Your task to perform on an android device: What's the weather? Image 0: 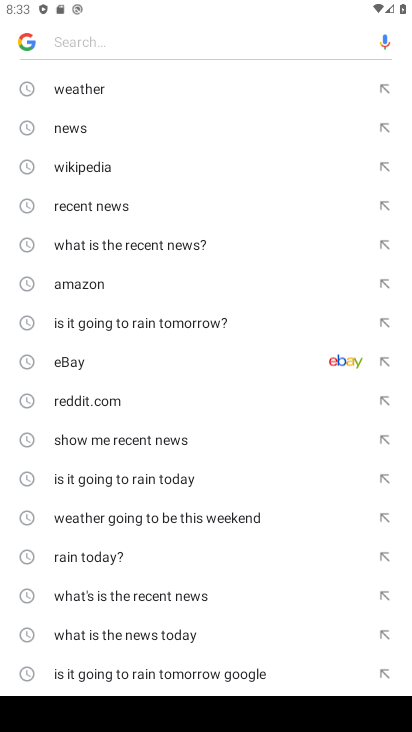
Step 0: press home button
Your task to perform on an android device: What's the weather? Image 1: 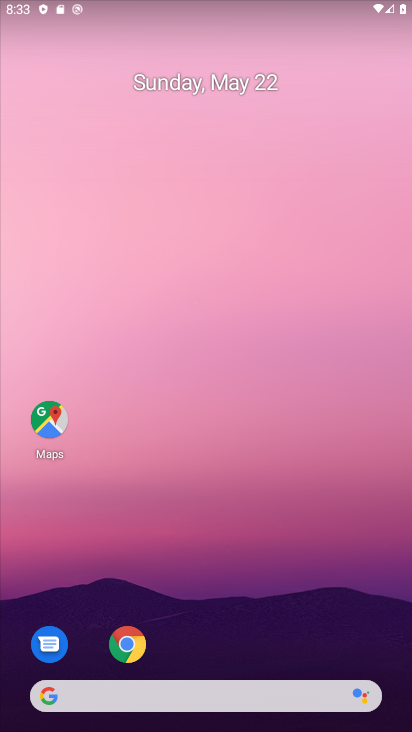
Step 1: drag from (21, 288) to (381, 265)
Your task to perform on an android device: What's the weather? Image 2: 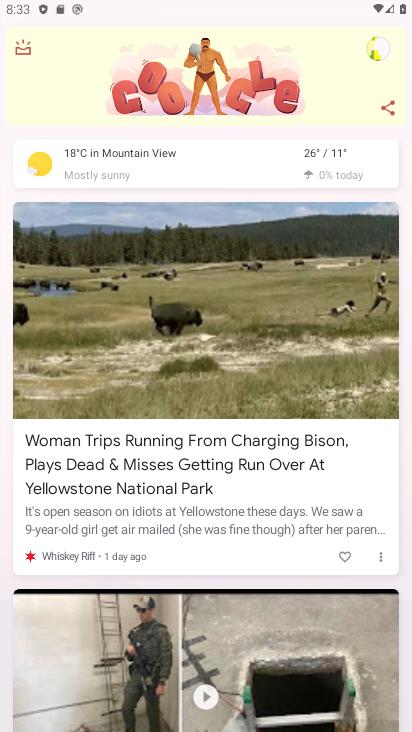
Step 2: click (42, 164)
Your task to perform on an android device: What's the weather? Image 3: 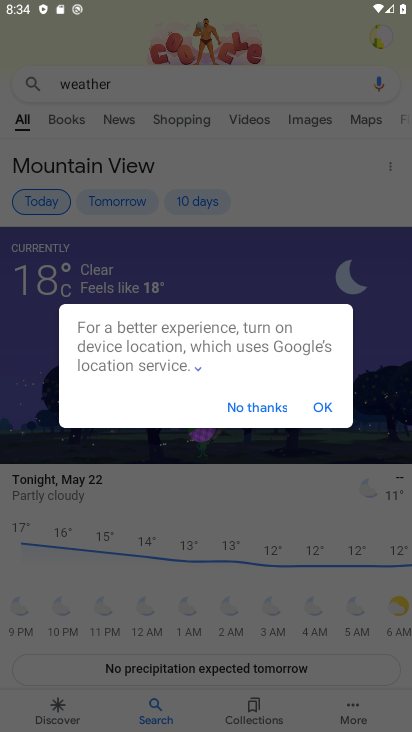
Step 3: click (322, 411)
Your task to perform on an android device: What's the weather? Image 4: 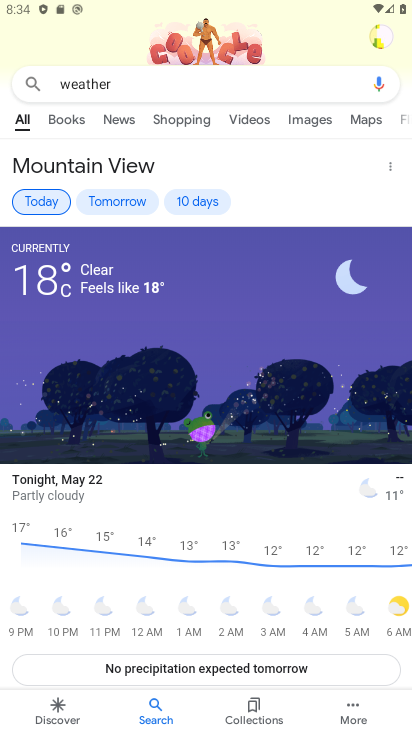
Step 4: task complete